Your task to perform on an android device: Open Android settings Image 0: 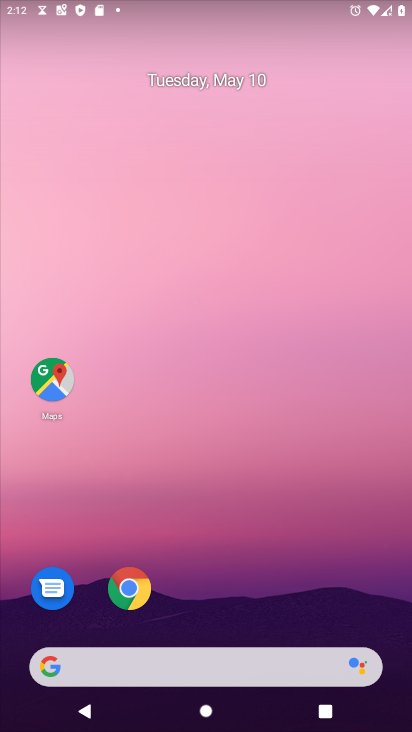
Step 0: drag from (229, 564) to (245, 261)
Your task to perform on an android device: Open Android settings Image 1: 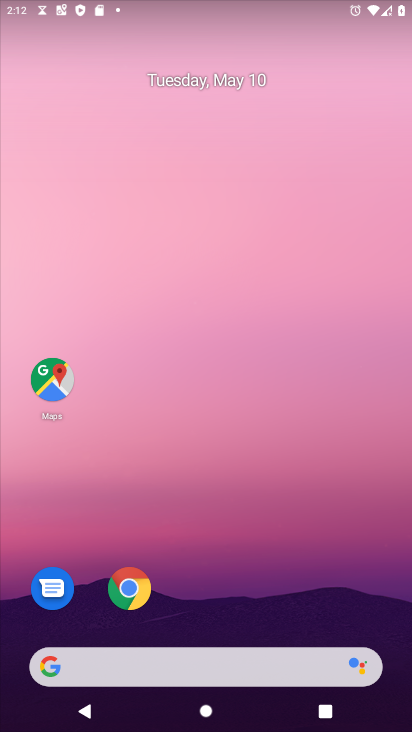
Step 1: drag from (251, 574) to (265, 316)
Your task to perform on an android device: Open Android settings Image 2: 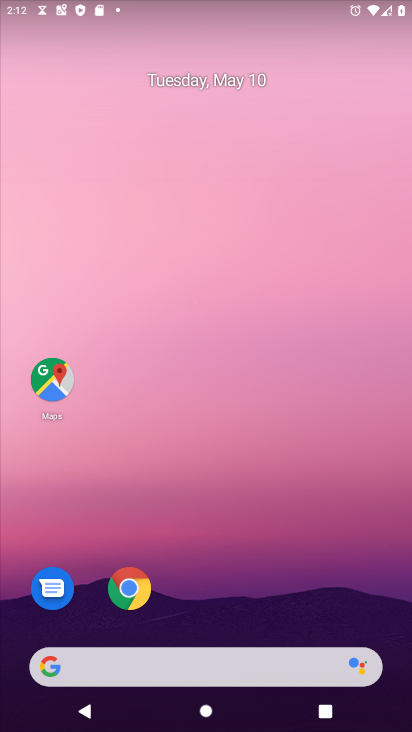
Step 2: drag from (240, 644) to (257, 337)
Your task to perform on an android device: Open Android settings Image 3: 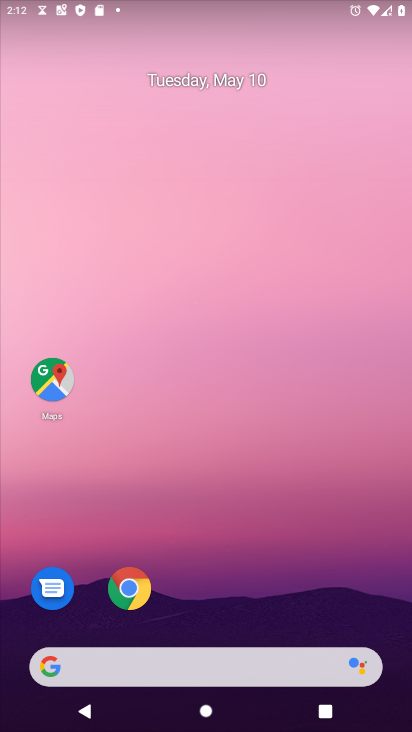
Step 3: drag from (233, 657) to (266, 241)
Your task to perform on an android device: Open Android settings Image 4: 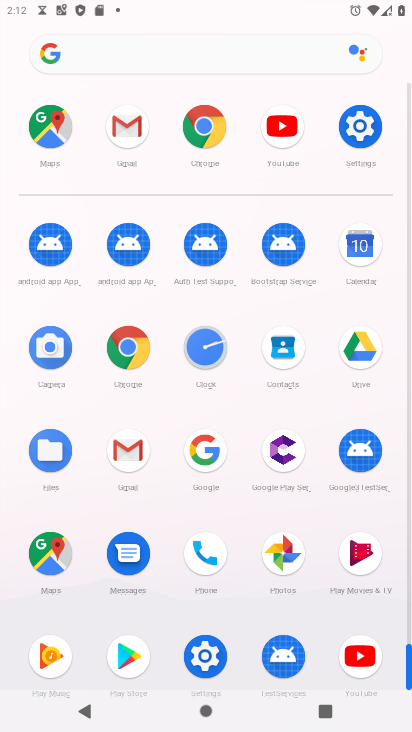
Step 4: click (363, 126)
Your task to perform on an android device: Open Android settings Image 5: 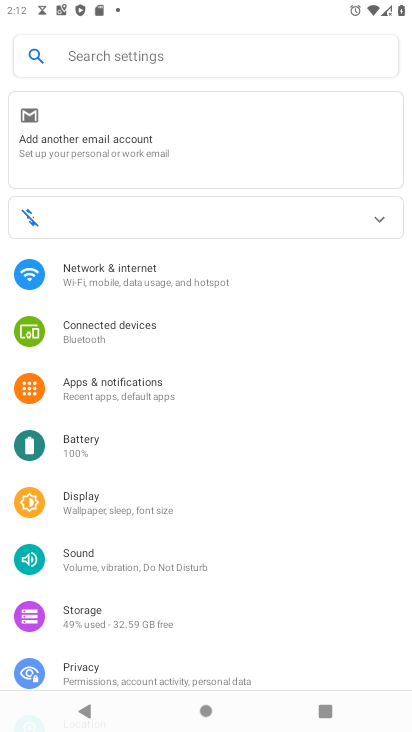
Step 5: task complete